Your task to perform on an android device: Open network settings Image 0: 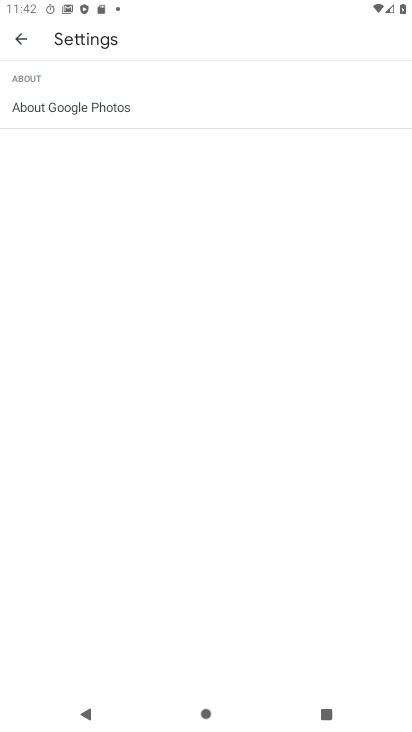
Step 0: press back button
Your task to perform on an android device: Open network settings Image 1: 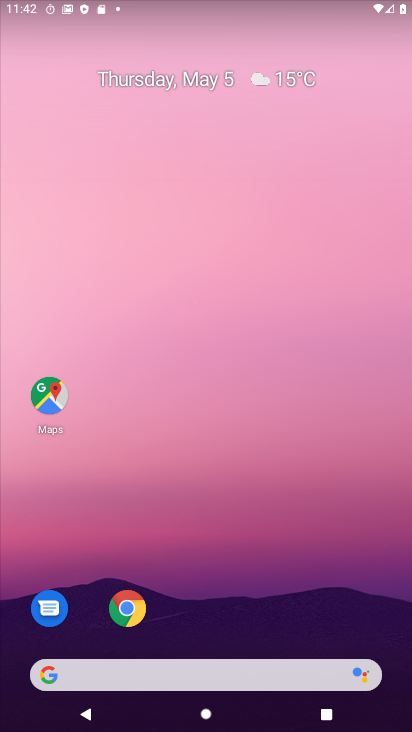
Step 1: drag from (227, 585) to (201, 16)
Your task to perform on an android device: Open network settings Image 2: 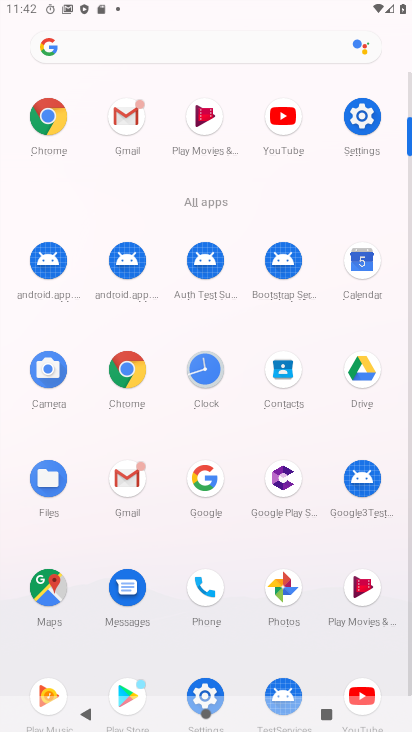
Step 2: click (362, 119)
Your task to perform on an android device: Open network settings Image 3: 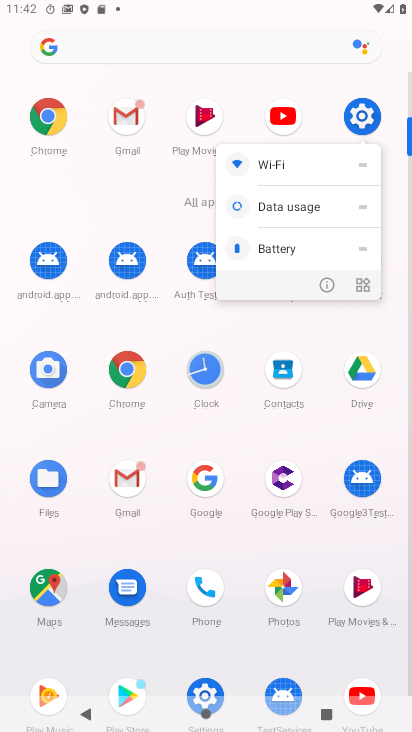
Step 3: click (362, 119)
Your task to perform on an android device: Open network settings Image 4: 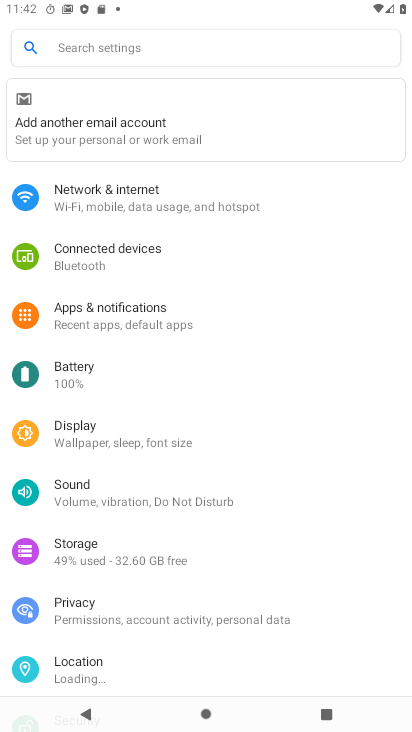
Step 4: click (170, 205)
Your task to perform on an android device: Open network settings Image 5: 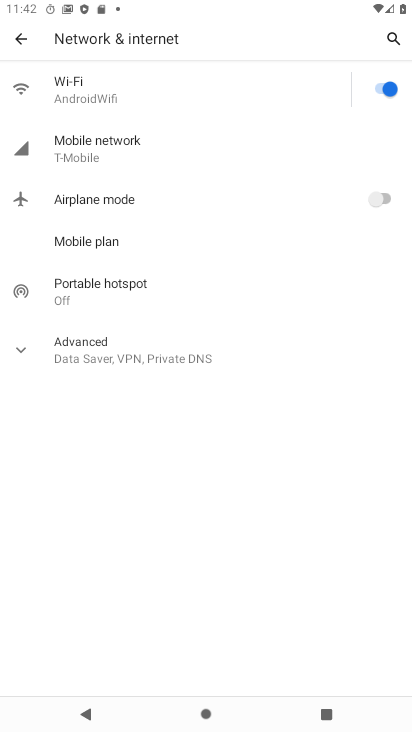
Step 5: click (108, 153)
Your task to perform on an android device: Open network settings Image 6: 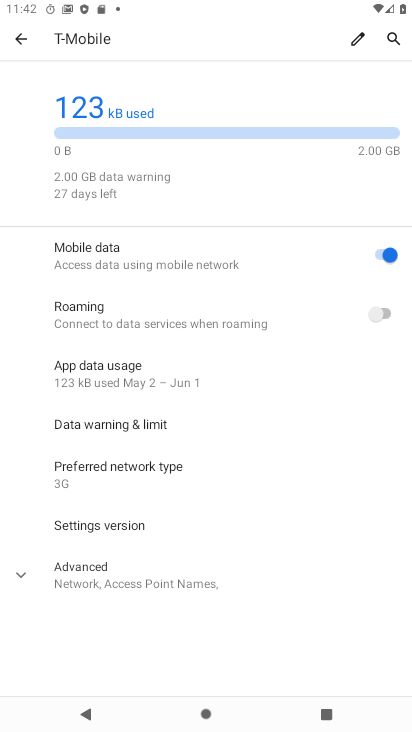
Step 6: task complete